Your task to perform on an android device: Open the calendar and show me this week's events Image 0: 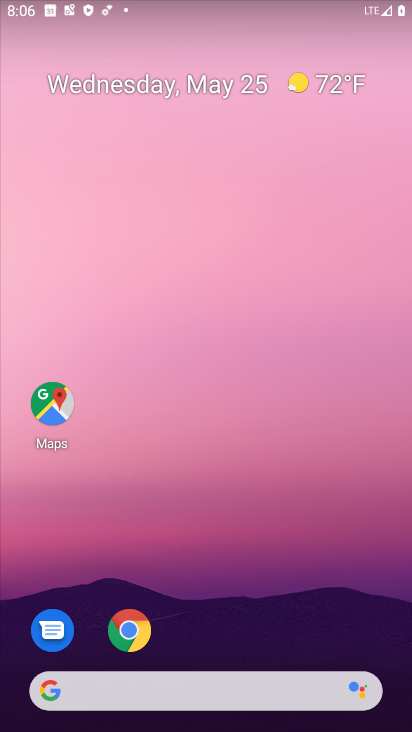
Step 0: drag from (214, 644) to (224, 159)
Your task to perform on an android device: Open the calendar and show me this week's events Image 1: 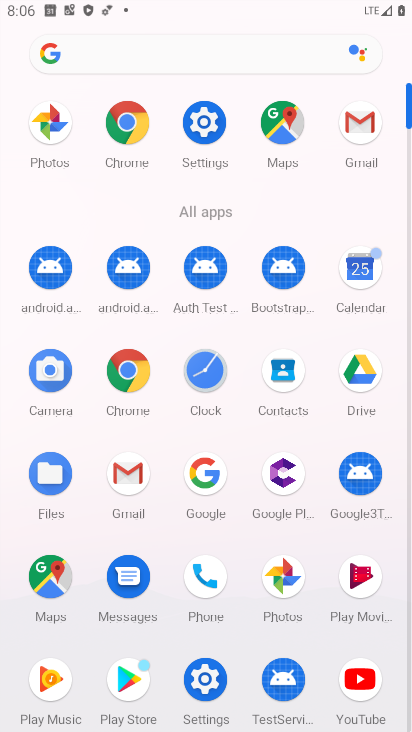
Step 1: click (357, 268)
Your task to perform on an android device: Open the calendar and show me this week's events Image 2: 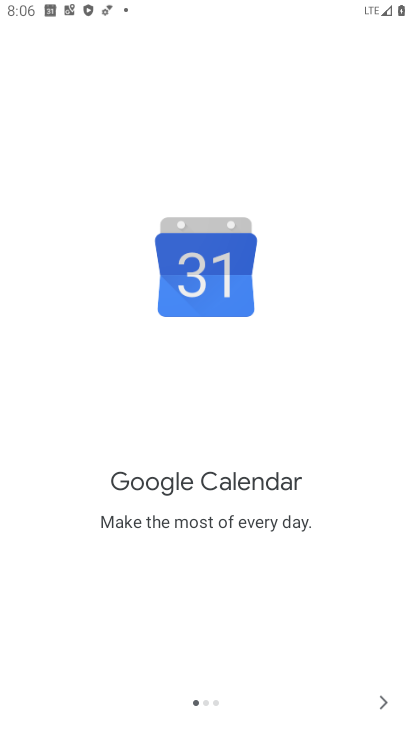
Step 2: click (382, 697)
Your task to perform on an android device: Open the calendar and show me this week's events Image 3: 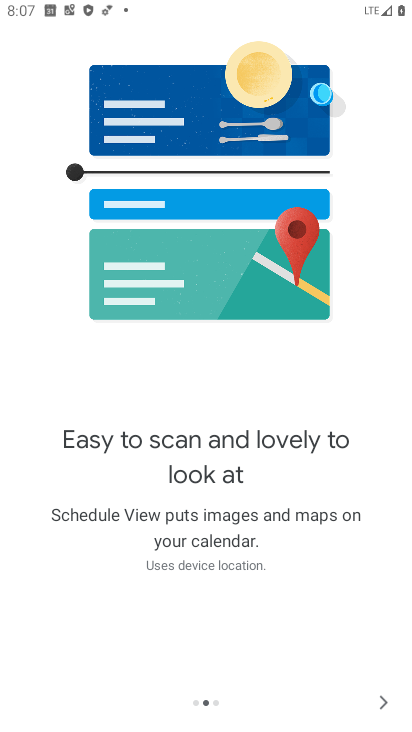
Step 3: click (390, 706)
Your task to perform on an android device: Open the calendar and show me this week's events Image 4: 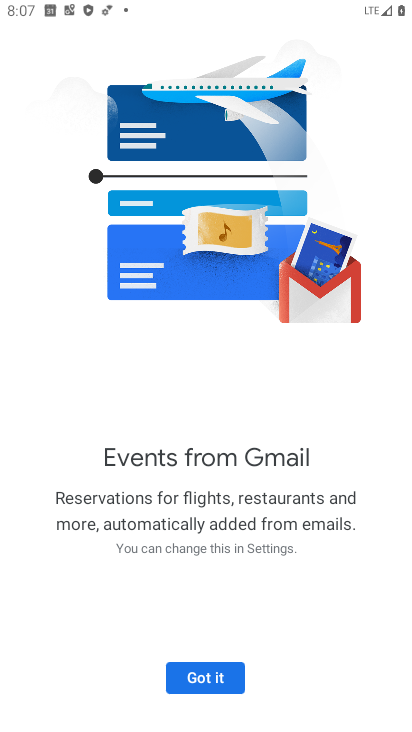
Step 4: click (225, 679)
Your task to perform on an android device: Open the calendar and show me this week's events Image 5: 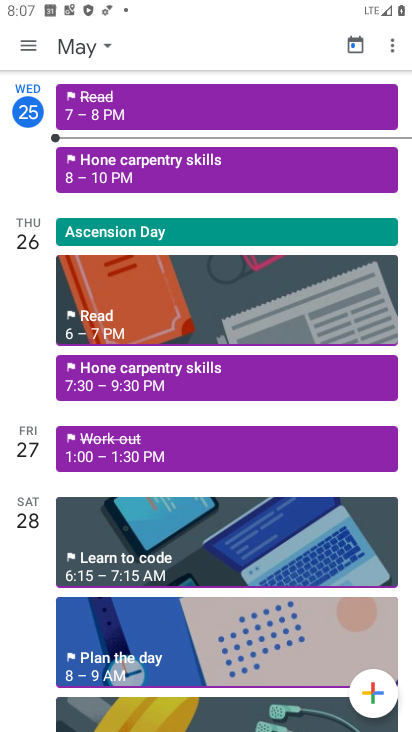
Step 5: click (102, 45)
Your task to perform on an android device: Open the calendar and show me this week's events Image 6: 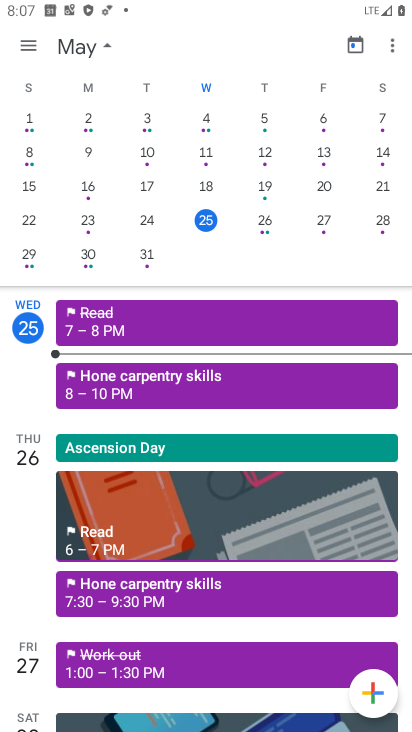
Step 6: click (382, 226)
Your task to perform on an android device: Open the calendar and show me this week's events Image 7: 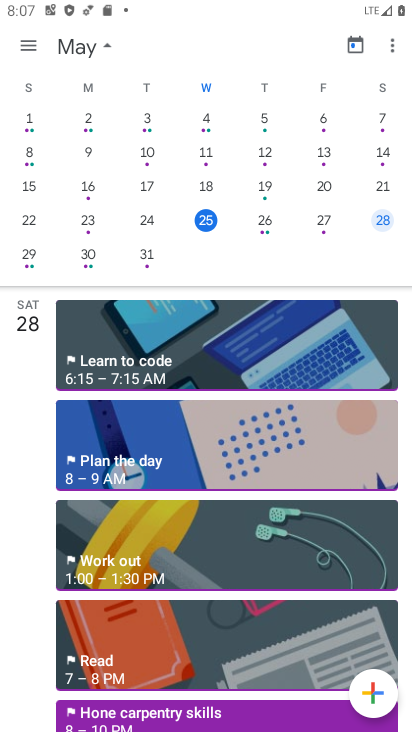
Step 7: click (385, 224)
Your task to perform on an android device: Open the calendar and show me this week's events Image 8: 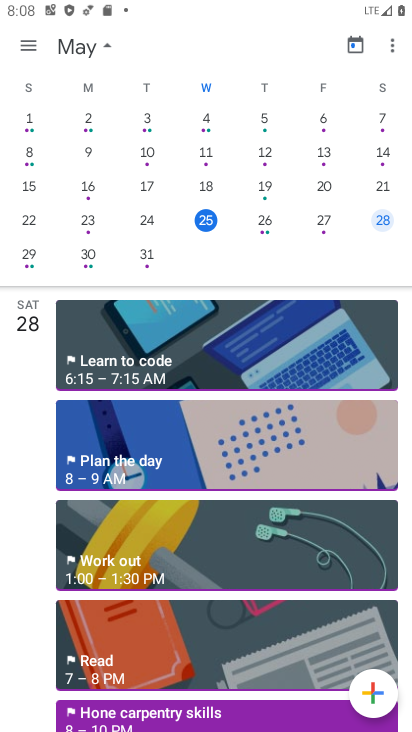
Step 8: task complete